Your task to perform on an android device: delete the emails in spam in the gmail app Image 0: 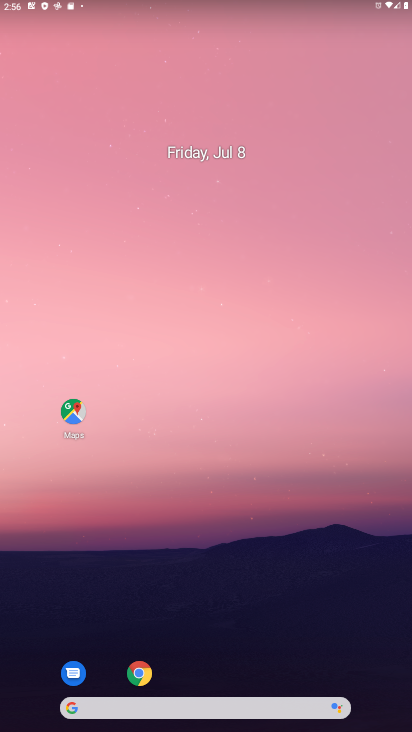
Step 0: click (141, 678)
Your task to perform on an android device: delete the emails in spam in the gmail app Image 1: 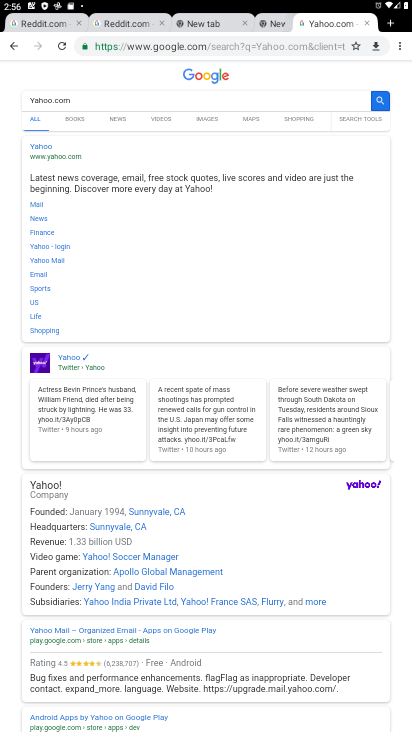
Step 1: press home button
Your task to perform on an android device: delete the emails in spam in the gmail app Image 2: 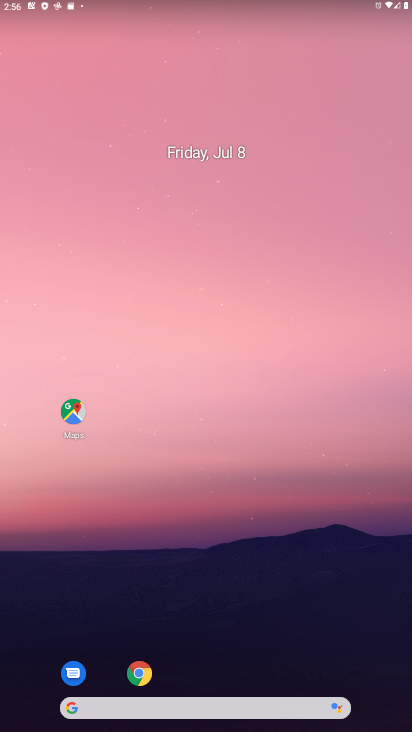
Step 2: drag from (385, 527) to (344, 154)
Your task to perform on an android device: delete the emails in spam in the gmail app Image 3: 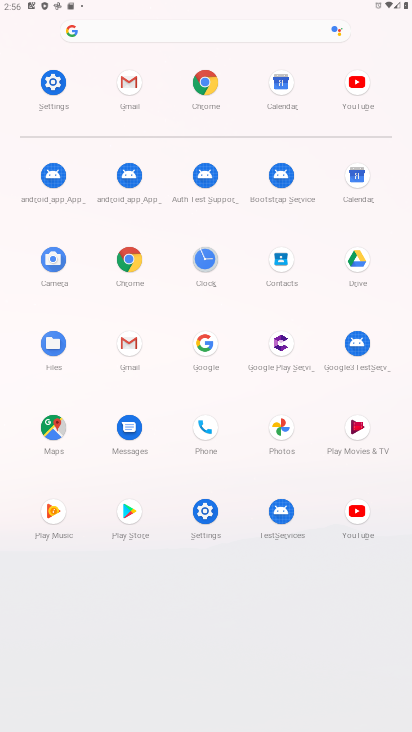
Step 3: click (127, 352)
Your task to perform on an android device: delete the emails in spam in the gmail app Image 4: 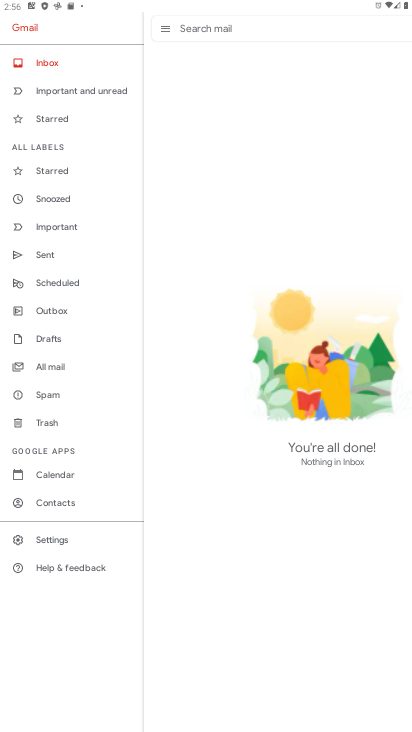
Step 4: task complete